Your task to perform on an android device: open app "Google Photos" Image 0: 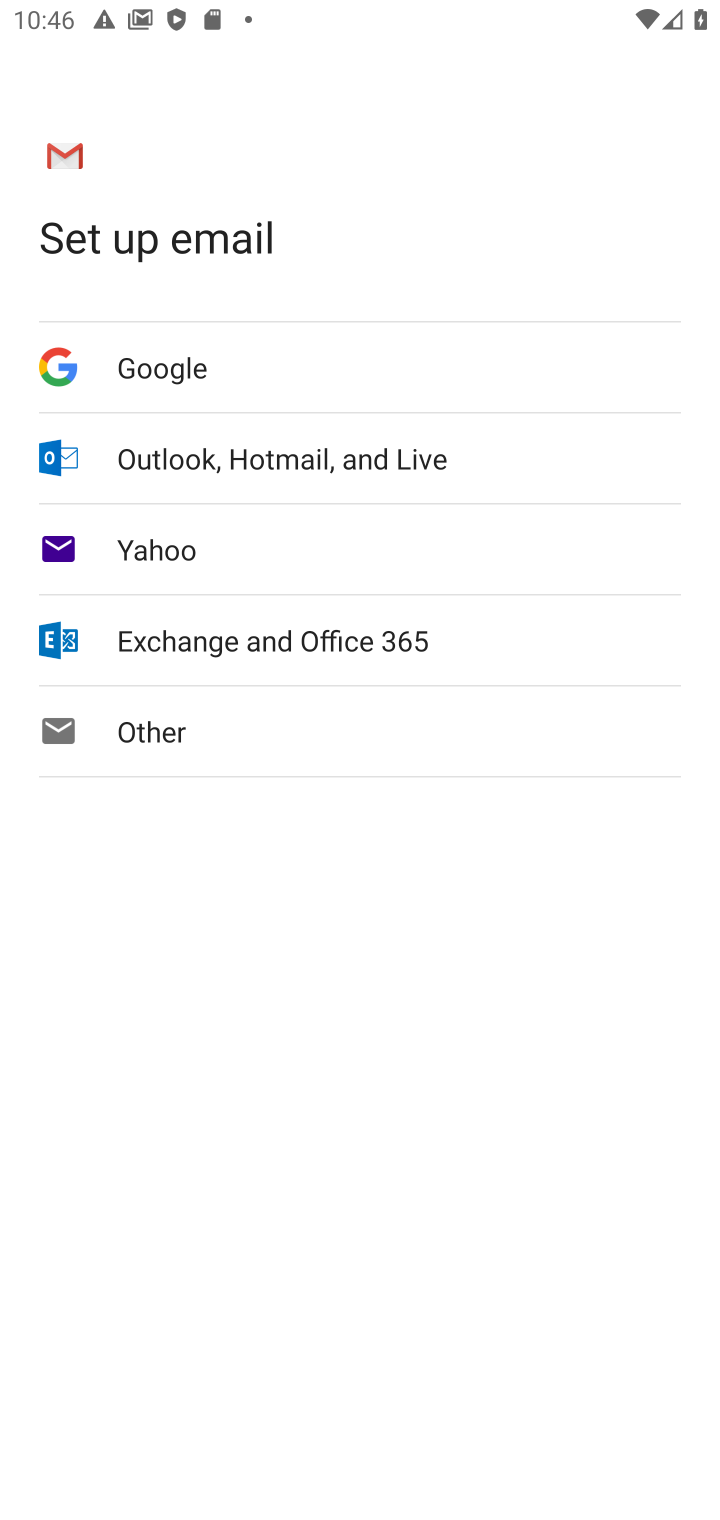
Step 0: press home button
Your task to perform on an android device: open app "Google Photos" Image 1: 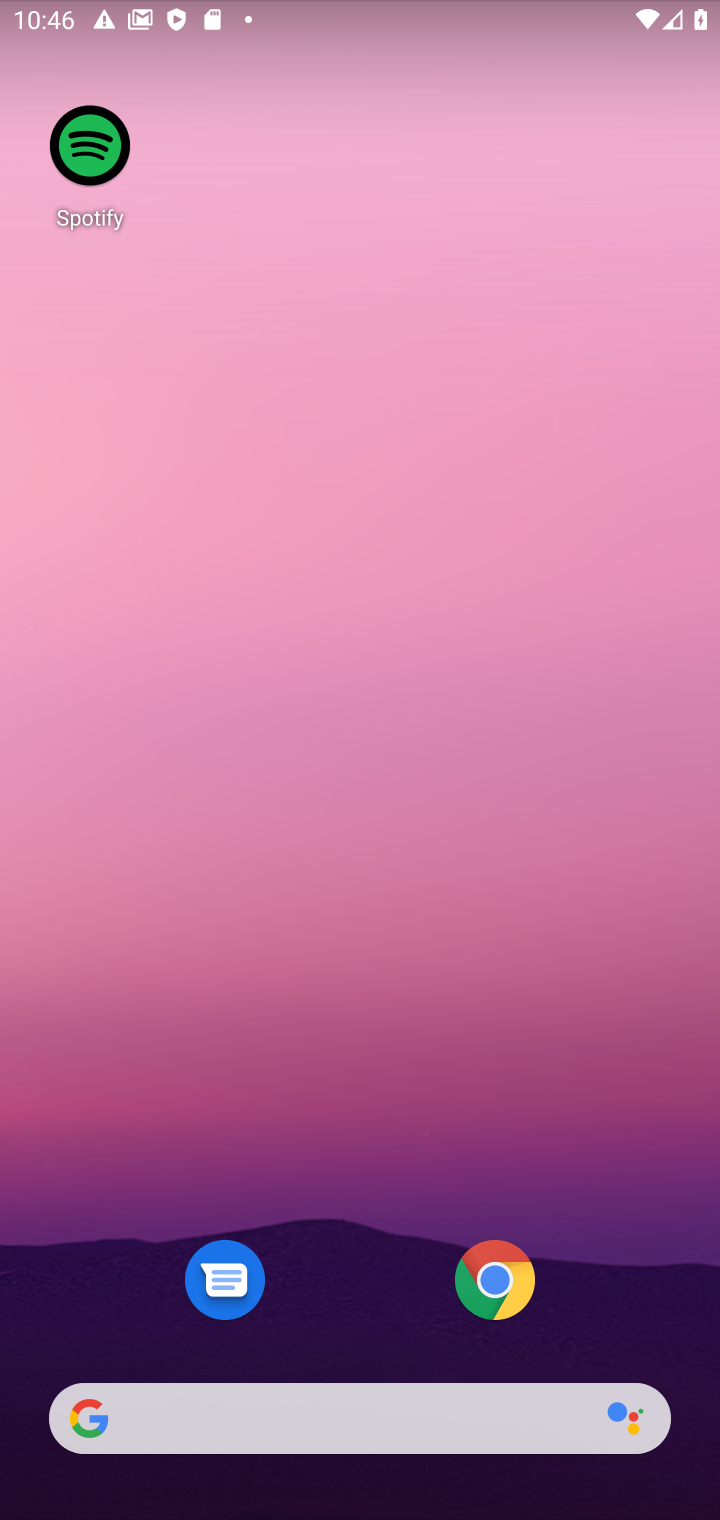
Step 1: drag from (299, 1365) to (177, 5)
Your task to perform on an android device: open app "Google Photos" Image 2: 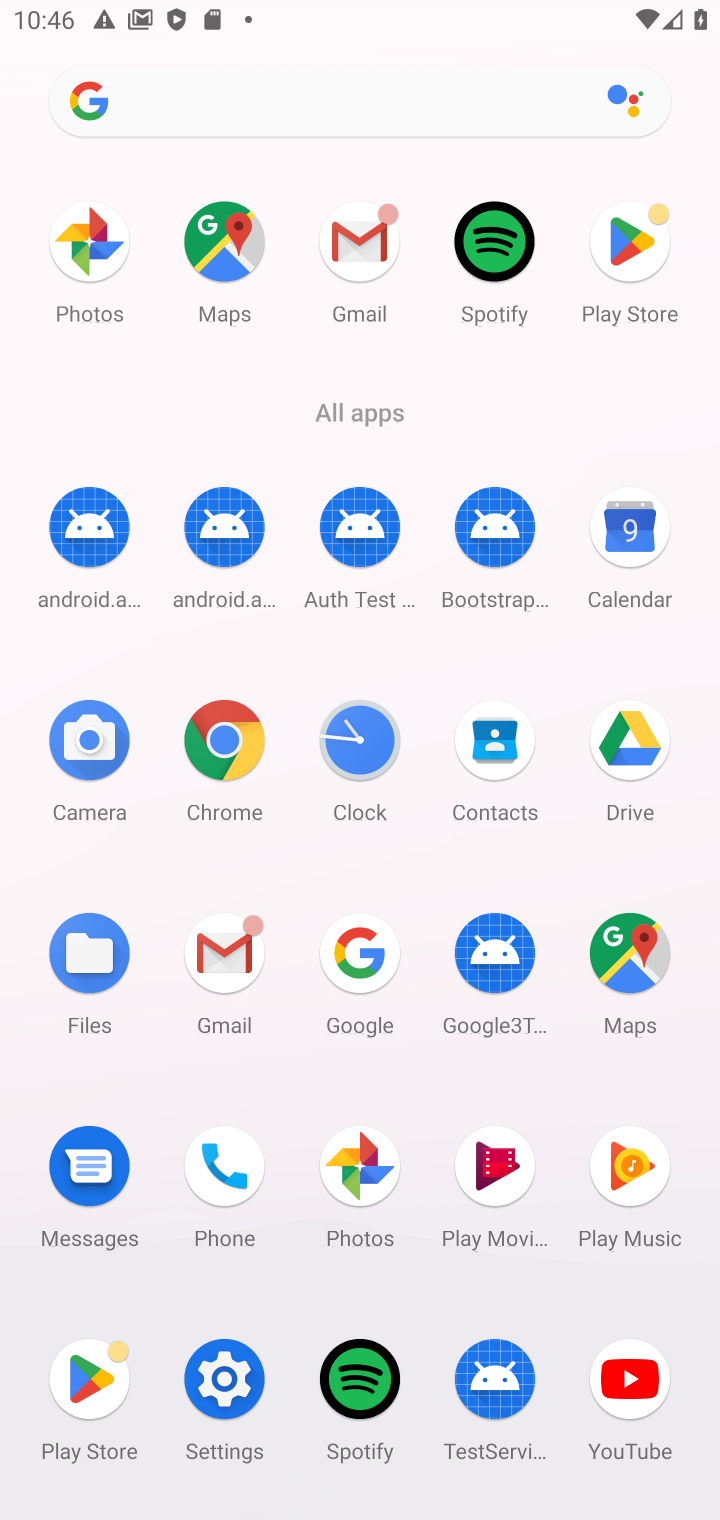
Step 2: click (351, 1173)
Your task to perform on an android device: open app "Google Photos" Image 3: 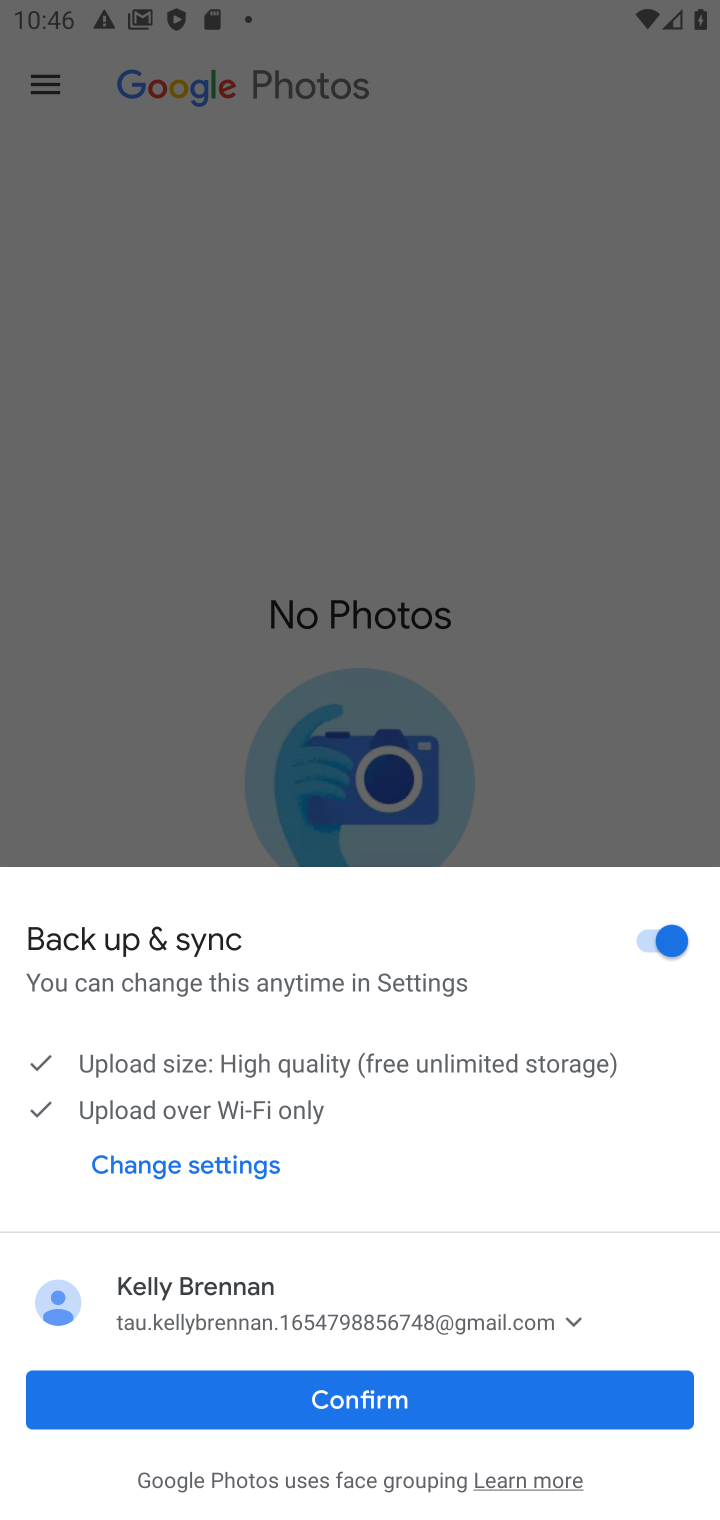
Step 3: click (308, 1380)
Your task to perform on an android device: open app "Google Photos" Image 4: 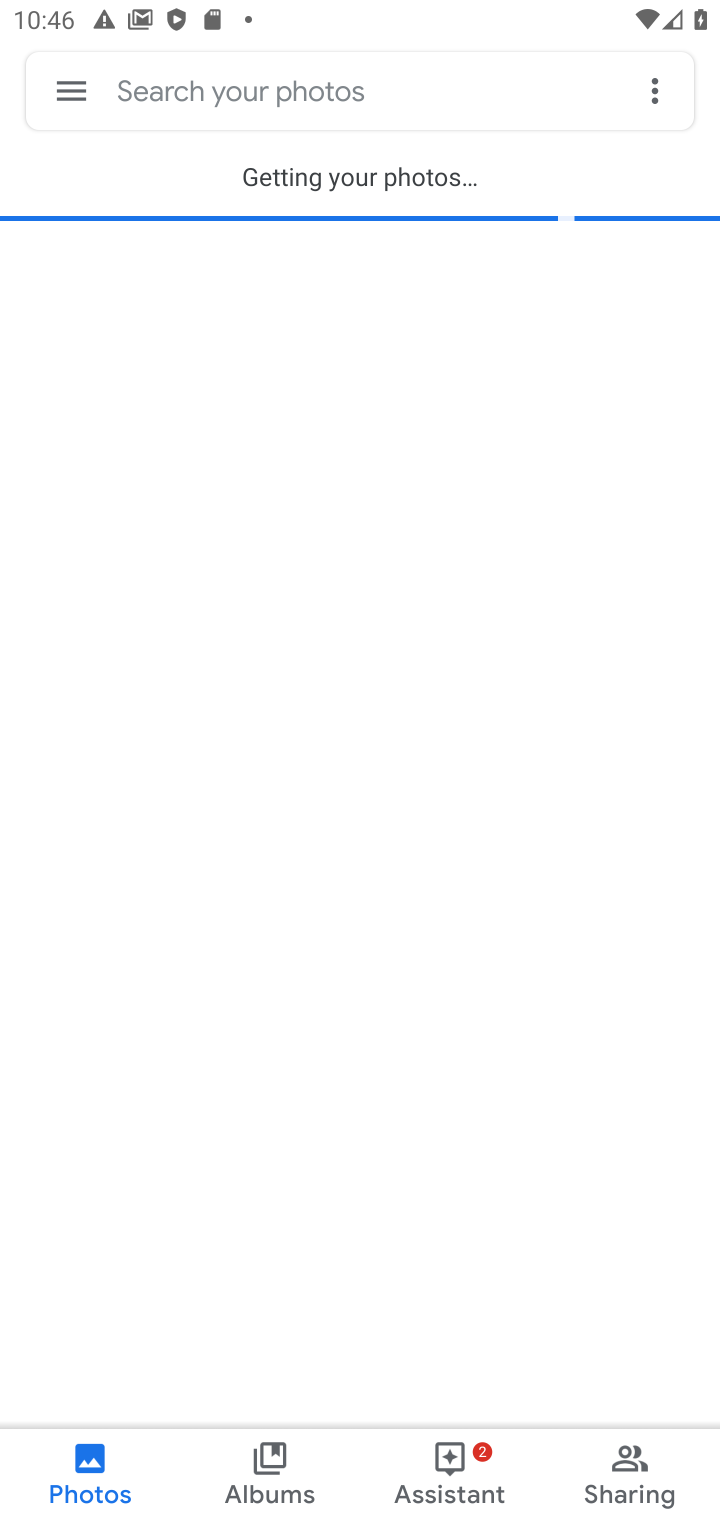
Step 4: task complete